Your task to perform on an android device: open app "Messages" (install if not already installed) and enter user name: "Hersey@inbox.com" and password: "facings" Image 0: 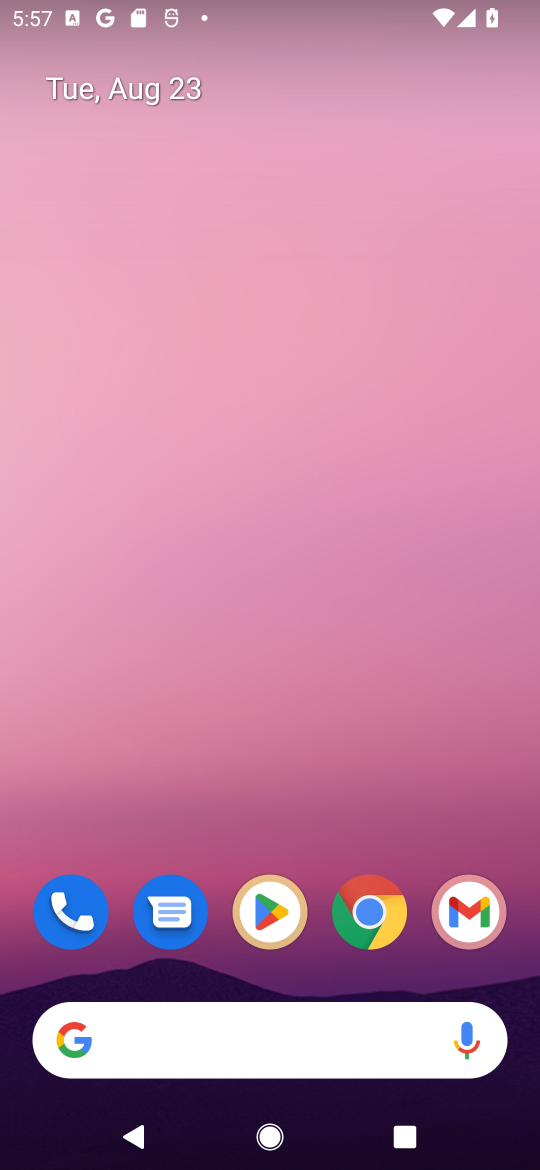
Step 0: drag from (166, 923) to (245, 915)
Your task to perform on an android device: open app "Messages" (install if not already installed) and enter user name: "Hersey@inbox.com" and password: "facings" Image 1: 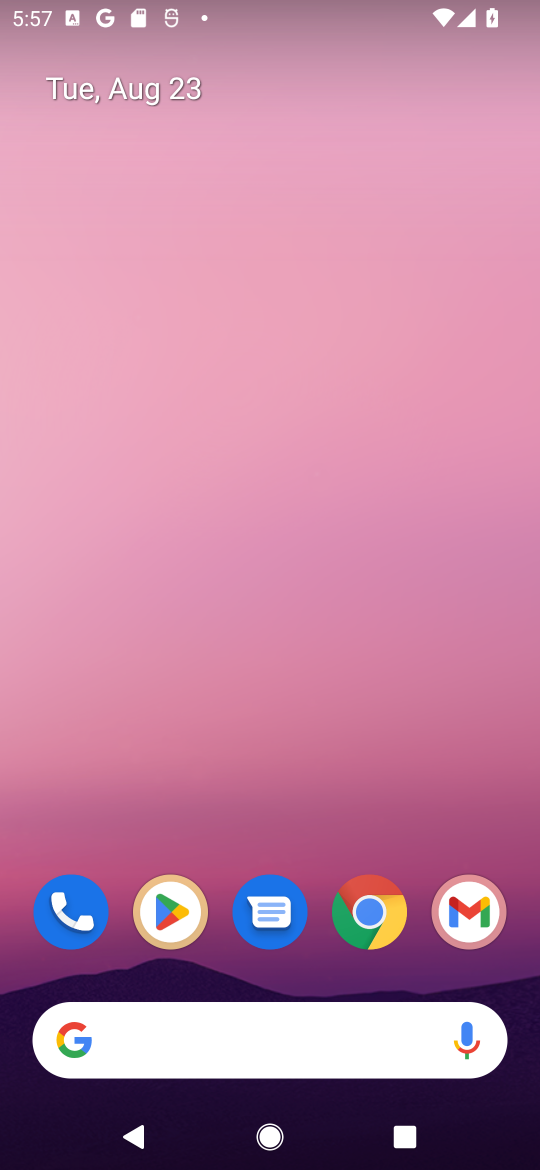
Step 1: click (134, 878)
Your task to perform on an android device: open app "Messages" (install if not already installed) and enter user name: "Hersey@inbox.com" and password: "facings" Image 2: 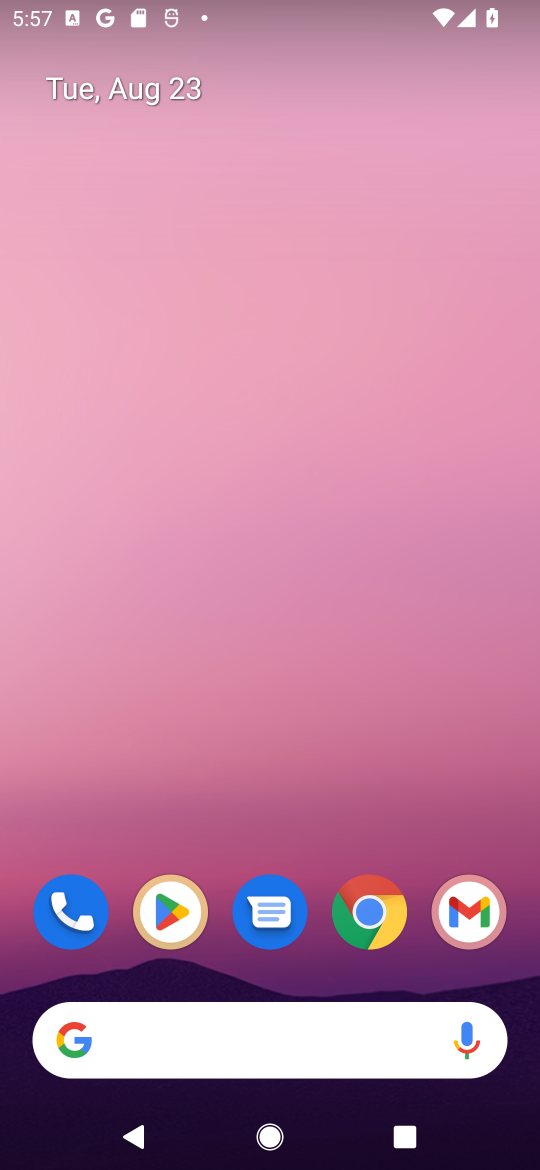
Step 2: click (172, 912)
Your task to perform on an android device: open app "Messages" (install if not already installed) and enter user name: "Hersey@inbox.com" and password: "facings" Image 3: 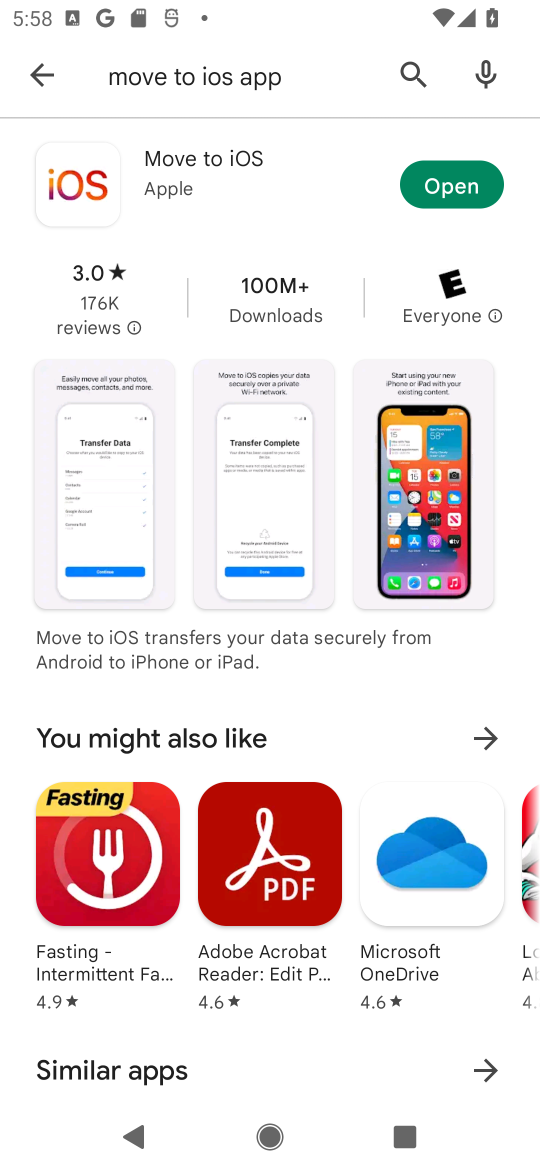
Step 3: click (172, 912)
Your task to perform on an android device: open app "Messages" (install if not already installed) and enter user name: "Hersey@inbox.com" and password: "facings" Image 4: 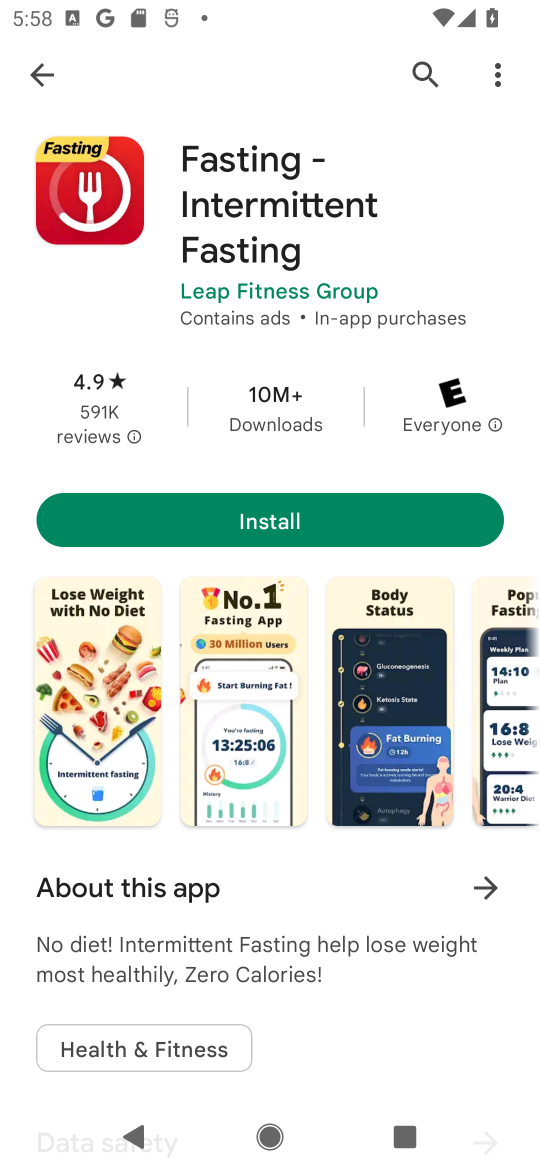
Step 4: click (49, 84)
Your task to perform on an android device: open app "Messages" (install if not already installed) and enter user name: "Hersey@inbox.com" and password: "facings" Image 5: 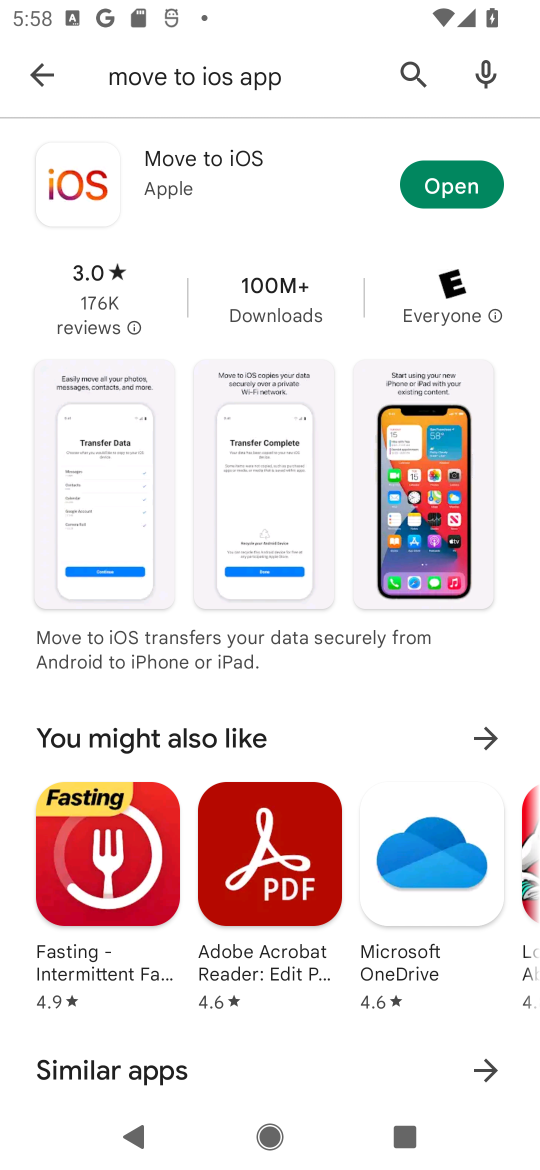
Step 5: click (42, 84)
Your task to perform on an android device: open app "Messages" (install if not already installed) and enter user name: "Hersey@inbox.com" and password: "facings" Image 6: 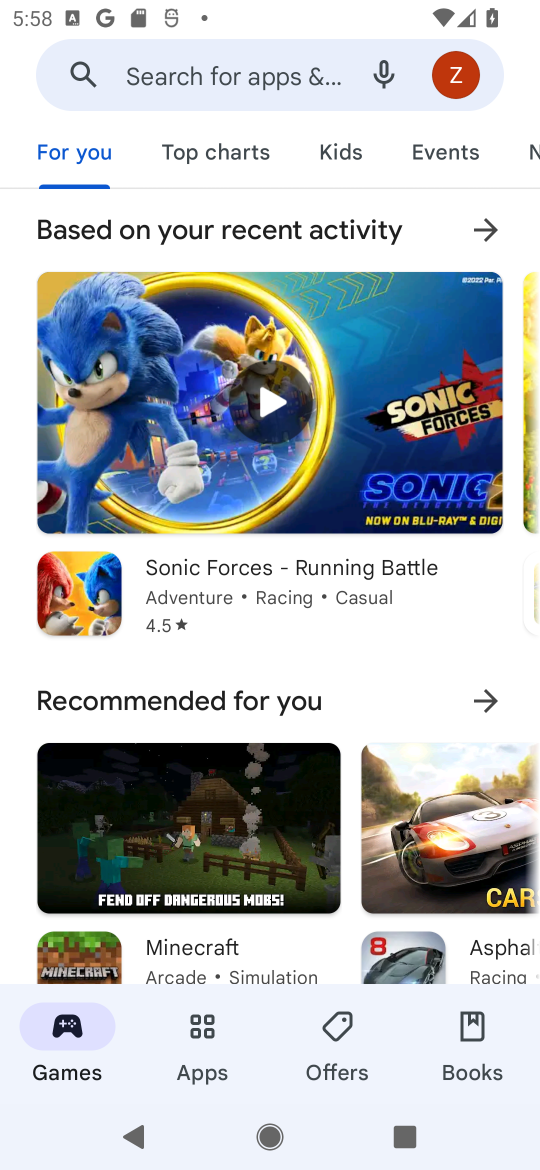
Step 6: click (227, 73)
Your task to perform on an android device: open app "Messages" (install if not already installed) and enter user name: "Hersey@inbox.com" and password: "facings" Image 7: 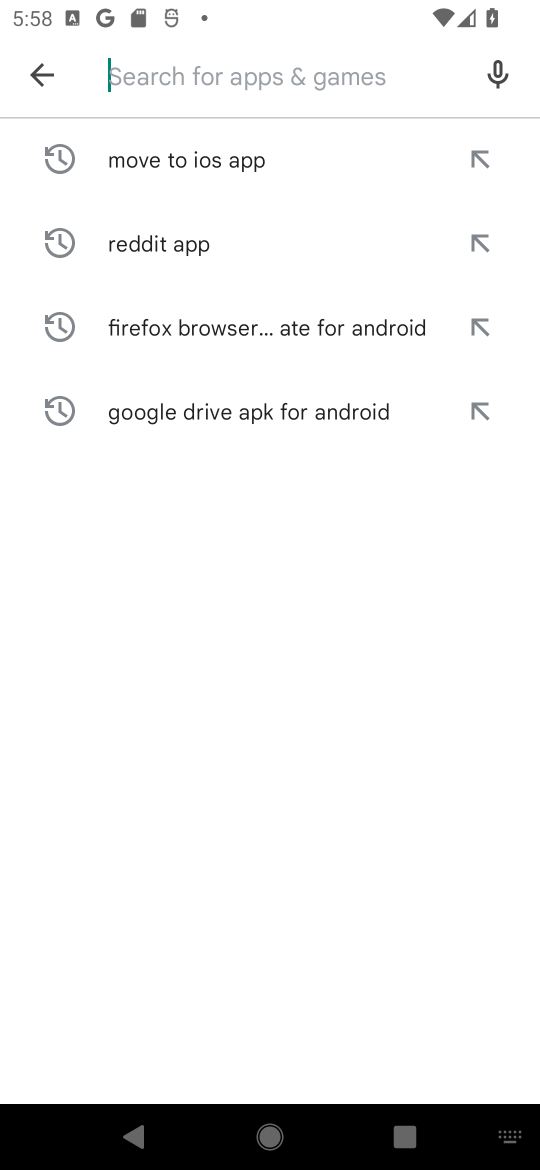
Step 7: type "Messages "
Your task to perform on an android device: open app "Messages" (install if not already installed) and enter user name: "Hersey@inbox.com" and password: "facings" Image 8: 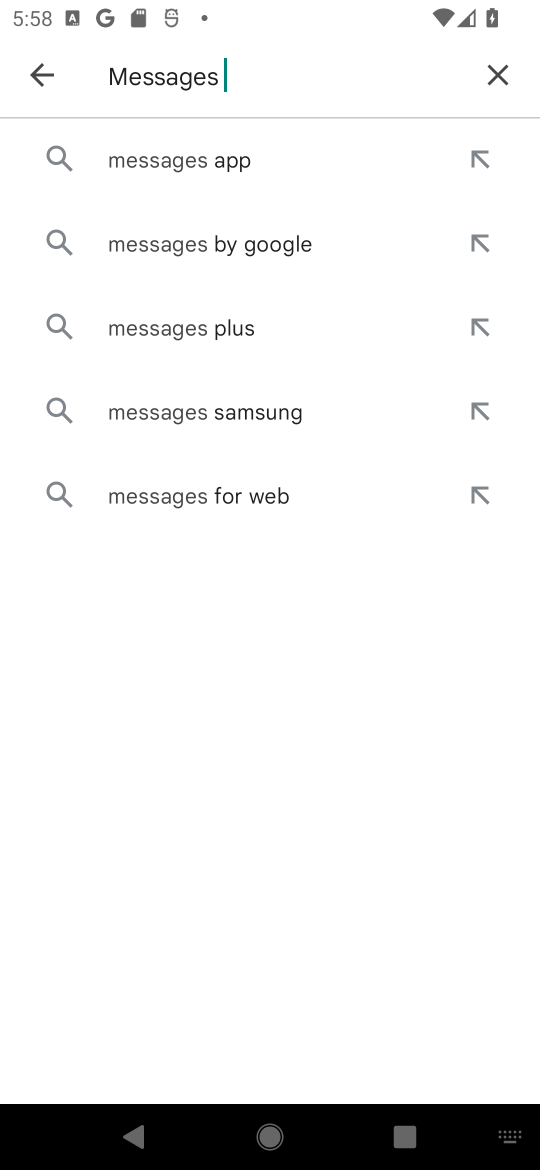
Step 8: click (231, 160)
Your task to perform on an android device: open app "Messages" (install if not already installed) and enter user name: "Hersey@inbox.com" and password: "facings" Image 9: 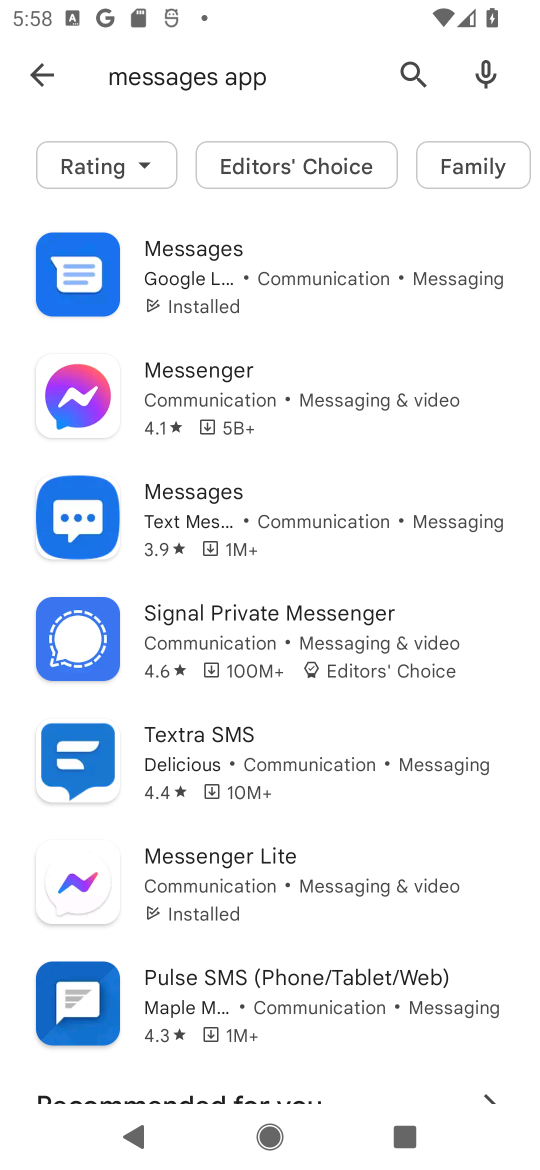
Step 9: click (170, 251)
Your task to perform on an android device: open app "Messages" (install if not already installed) and enter user name: "Hersey@inbox.com" and password: "facings" Image 10: 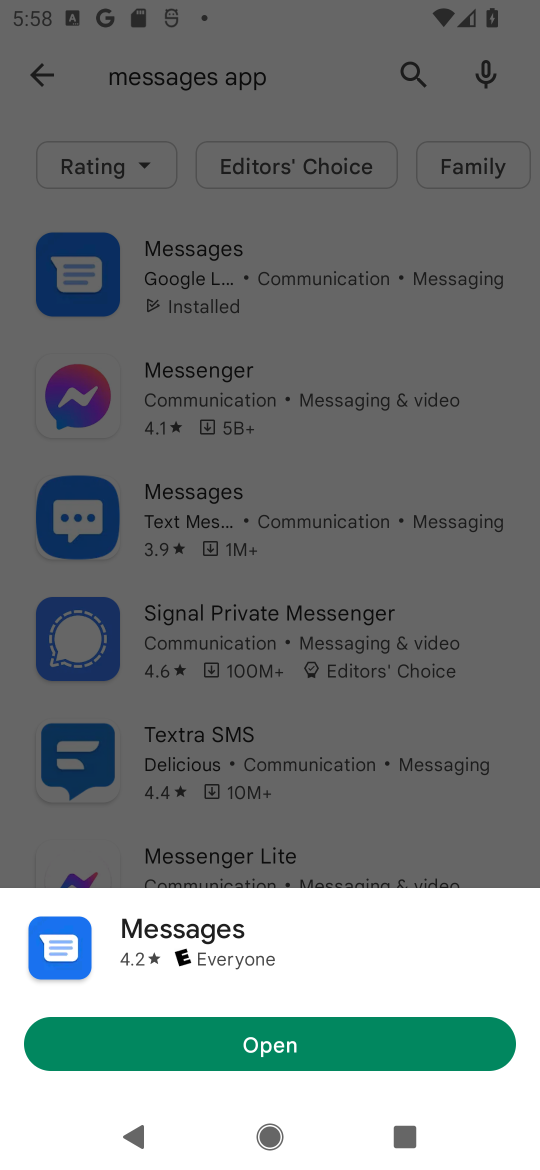
Step 10: click (245, 1052)
Your task to perform on an android device: open app "Messages" (install if not already installed) and enter user name: "Hersey@inbox.com" and password: "facings" Image 11: 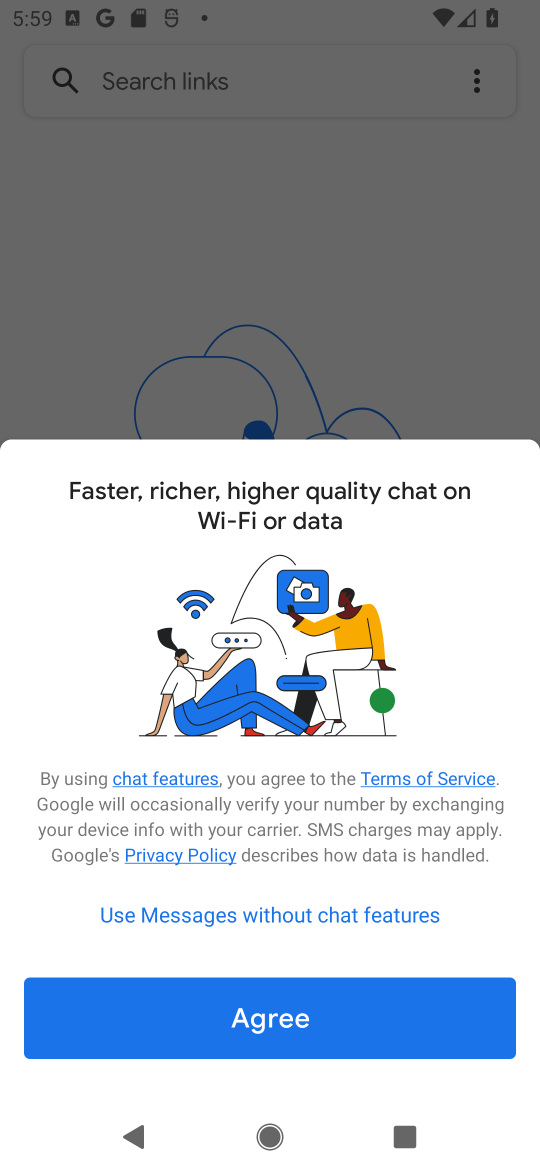
Step 11: click (147, 1018)
Your task to perform on an android device: open app "Messages" (install if not already installed) and enter user name: "Hersey@inbox.com" and password: "facings" Image 12: 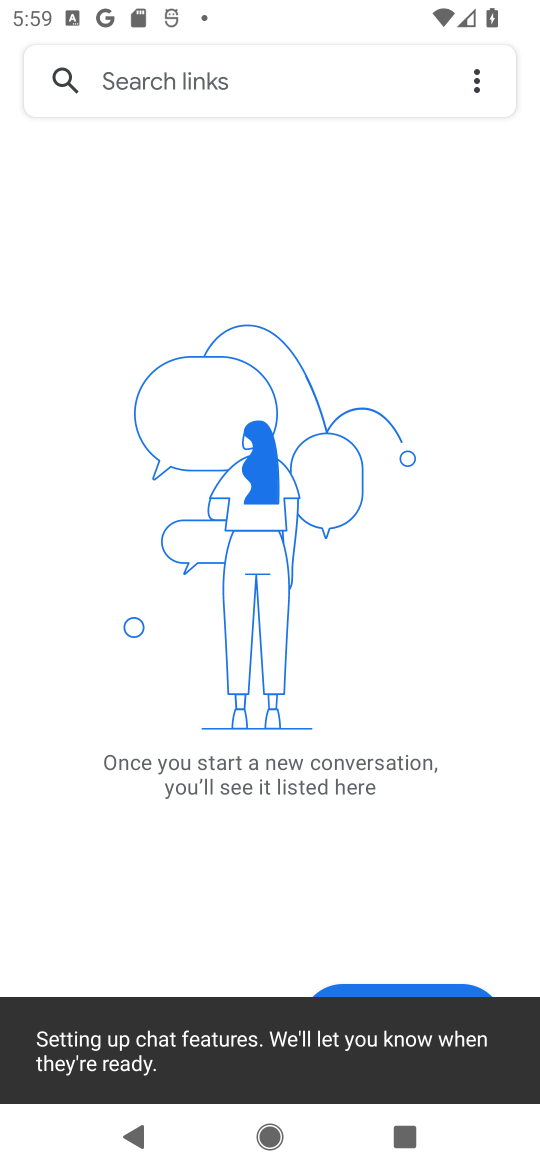
Step 12: task complete